Your task to perform on an android device: check storage Image 0: 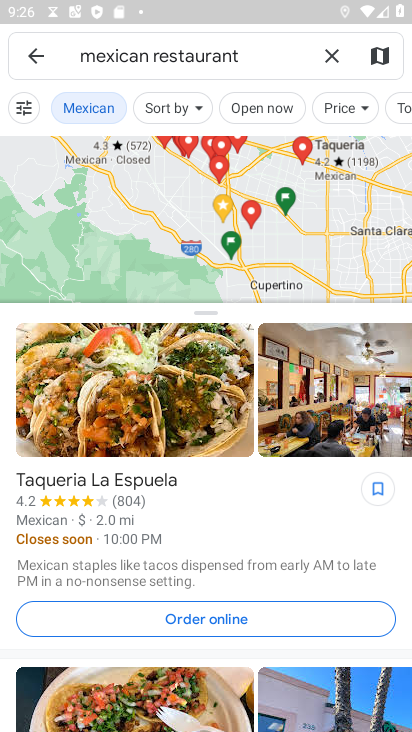
Step 0: press home button
Your task to perform on an android device: check storage Image 1: 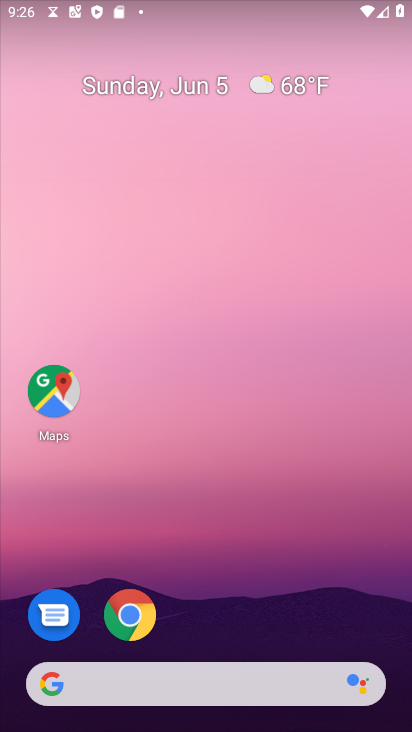
Step 1: drag from (129, 718) to (127, 257)
Your task to perform on an android device: check storage Image 2: 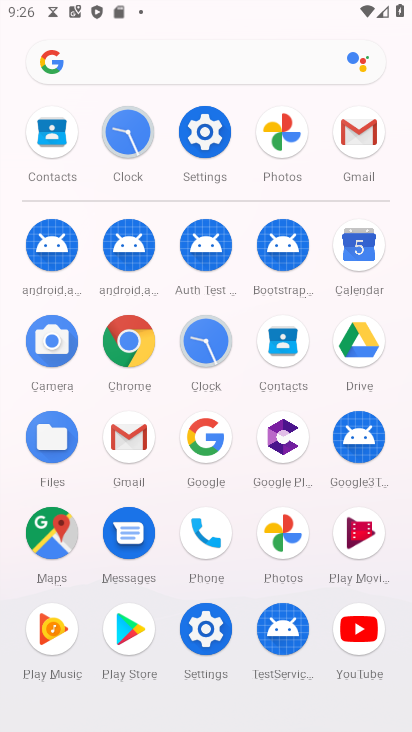
Step 2: click (225, 112)
Your task to perform on an android device: check storage Image 3: 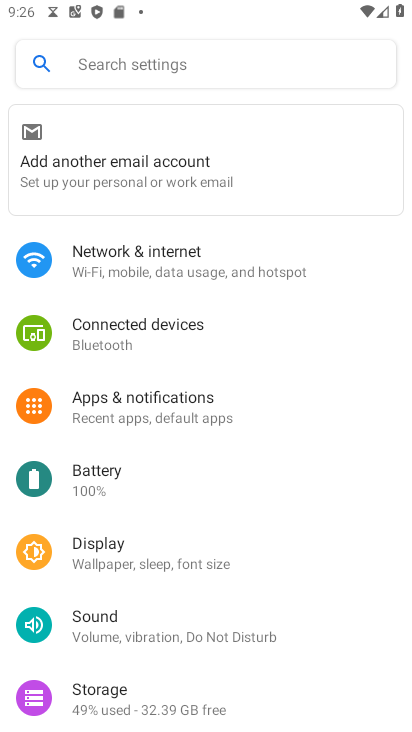
Step 3: drag from (245, 265) to (261, 367)
Your task to perform on an android device: check storage Image 4: 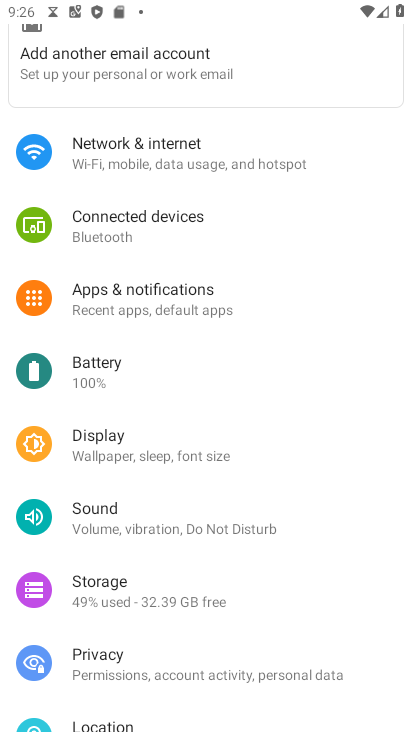
Step 4: click (142, 609)
Your task to perform on an android device: check storage Image 5: 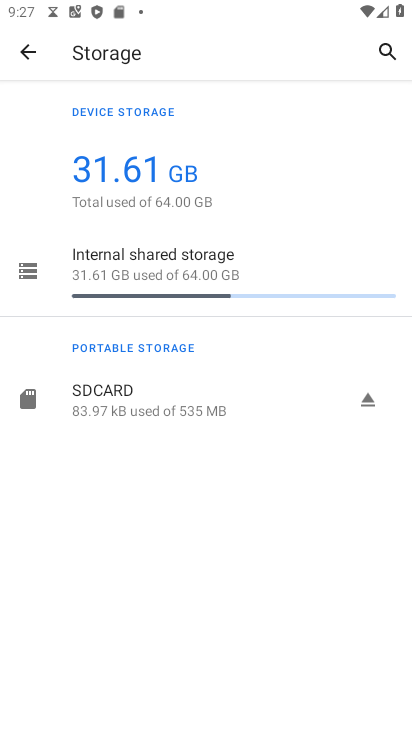
Step 5: task complete